Your task to perform on an android device: delete browsing data in the chrome app Image 0: 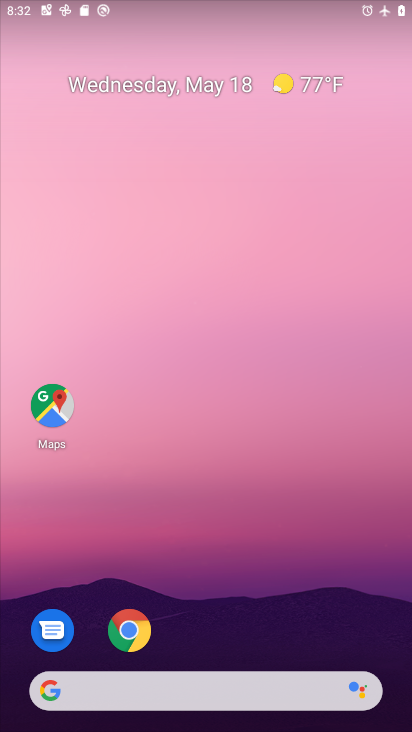
Step 0: click (178, 633)
Your task to perform on an android device: delete browsing data in the chrome app Image 1: 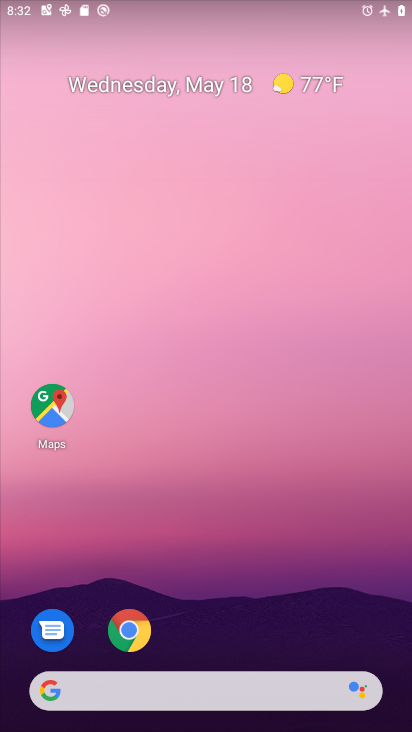
Step 1: click (131, 642)
Your task to perform on an android device: delete browsing data in the chrome app Image 2: 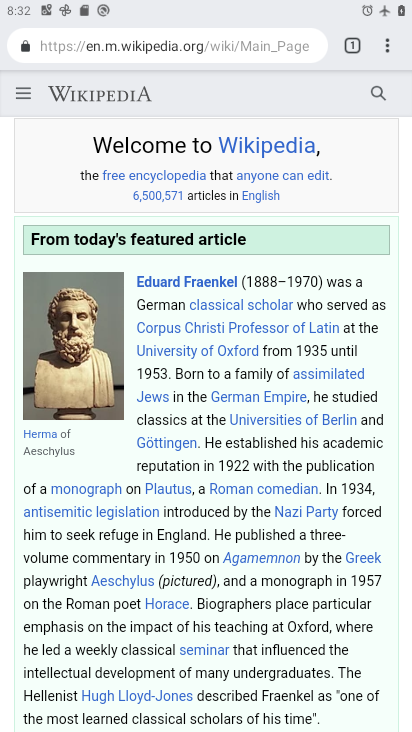
Step 2: drag from (396, 49) to (239, 253)
Your task to perform on an android device: delete browsing data in the chrome app Image 3: 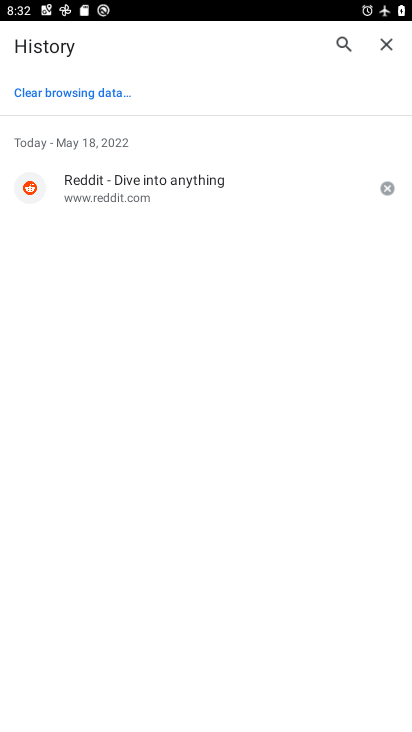
Step 3: click (87, 90)
Your task to perform on an android device: delete browsing data in the chrome app Image 4: 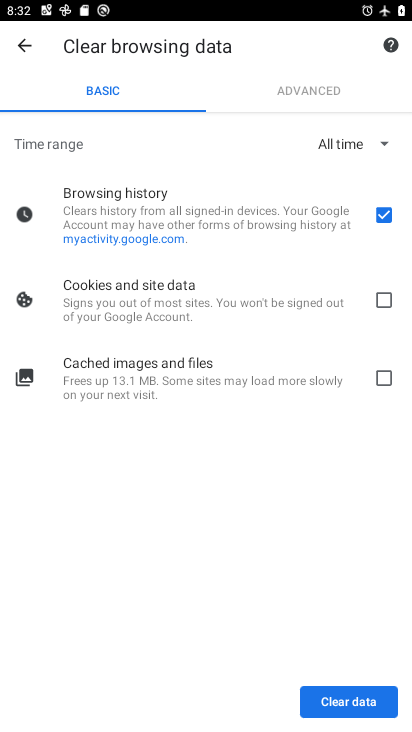
Step 4: click (374, 707)
Your task to perform on an android device: delete browsing data in the chrome app Image 5: 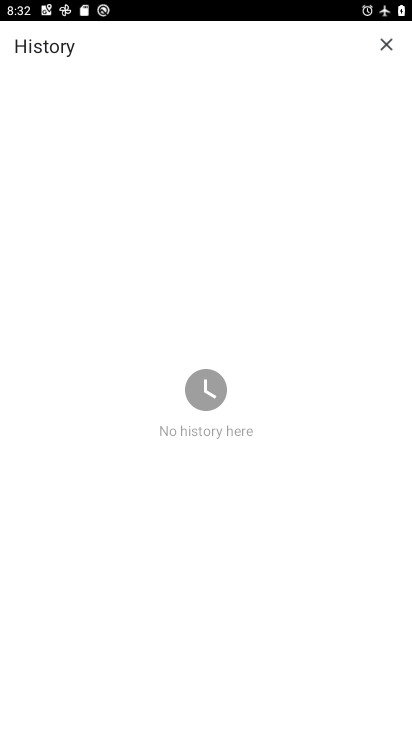
Step 5: task complete